Your task to perform on an android device: Show me recent news Image 0: 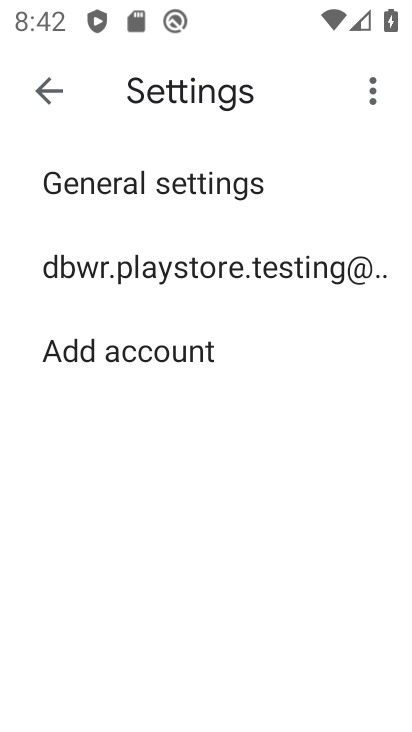
Step 0: press home button
Your task to perform on an android device: Show me recent news Image 1: 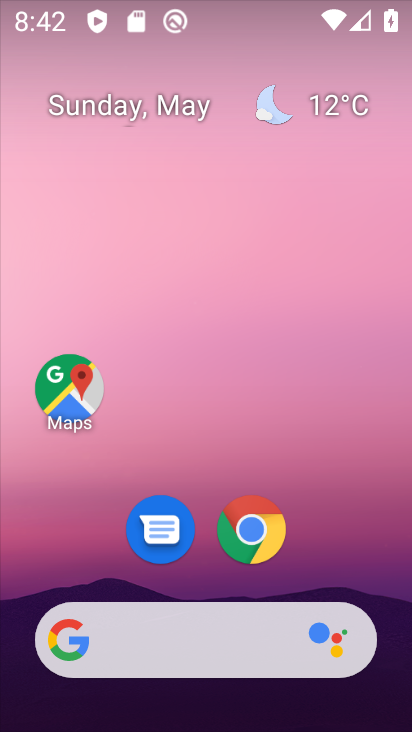
Step 1: click (177, 632)
Your task to perform on an android device: Show me recent news Image 2: 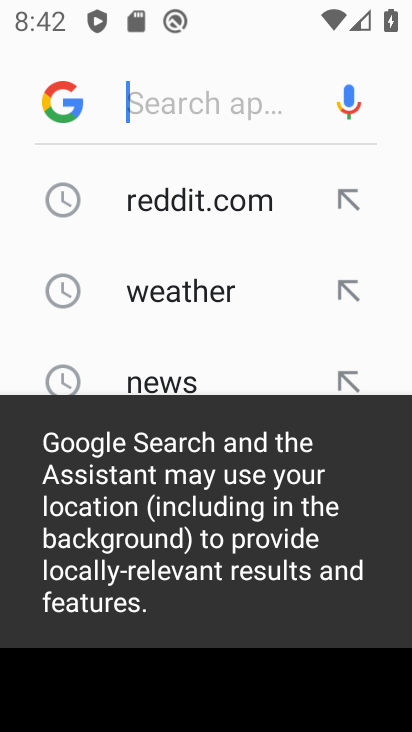
Step 2: click (195, 377)
Your task to perform on an android device: Show me recent news Image 3: 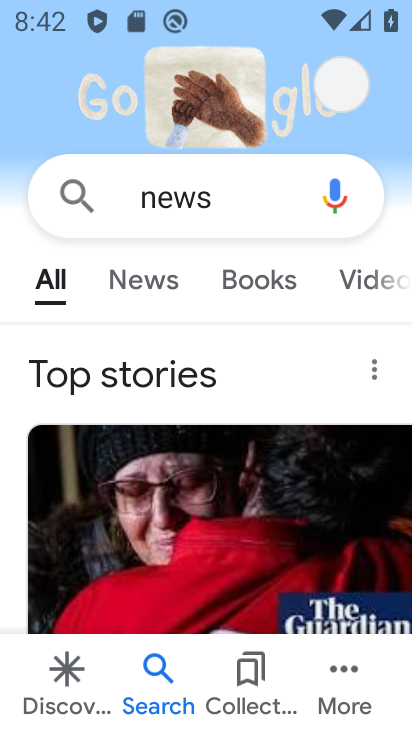
Step 3: click (160, 280)
Your task to perform on an android device: Show me recent news Image 4: 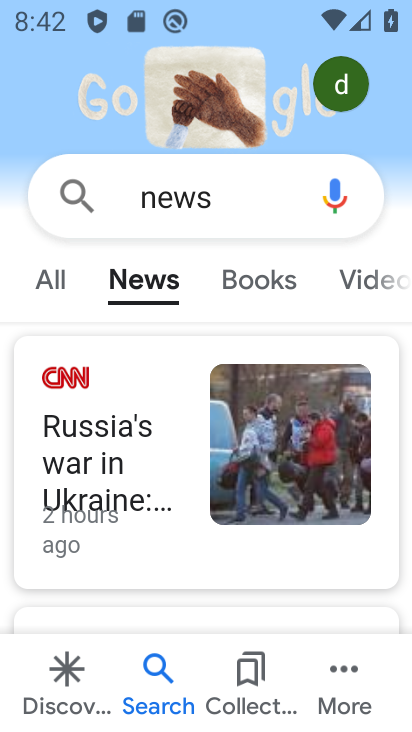
Step 4: task complete